Your task to perform on an android device: open a bookmark in the chrome app Image 0: 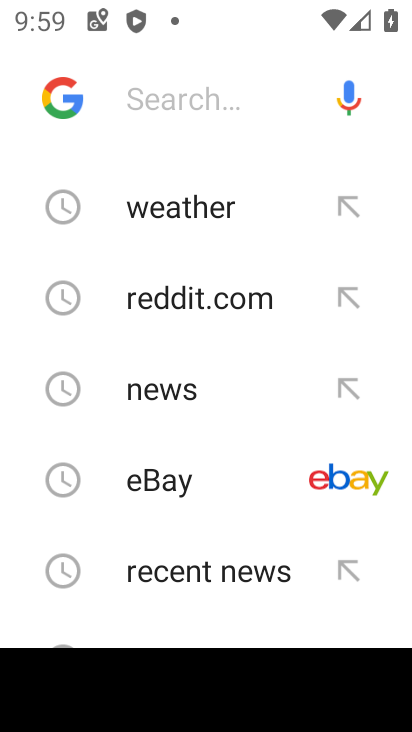
Step 0: press home button
Your task to perform on an android device: open a bookmark in the chrome app Image 1: 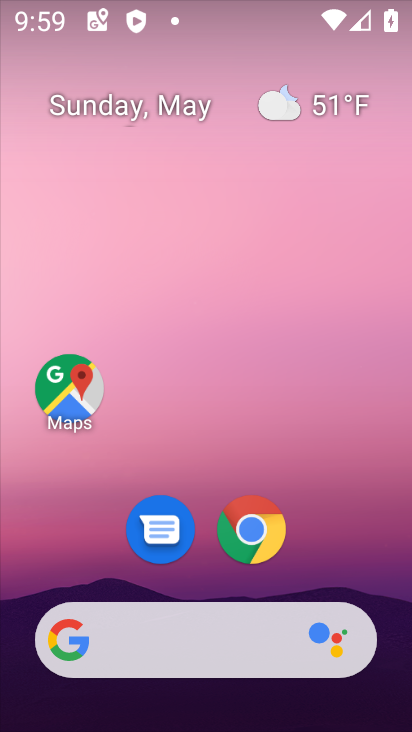
Step 1: drag from (257, 604) to (361, 65)
Your task to perform on an android device: open a bookmark in the chrome app Image 2: 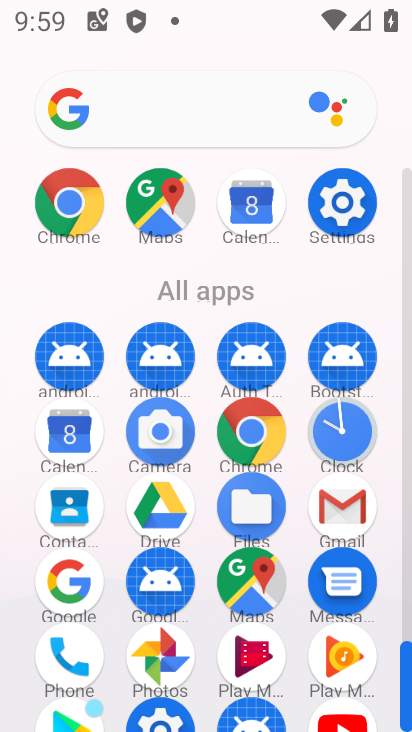
Step 2: click (260, 431)
Your task to perform on an android device: open a bookmark in the chrome app Image 3: 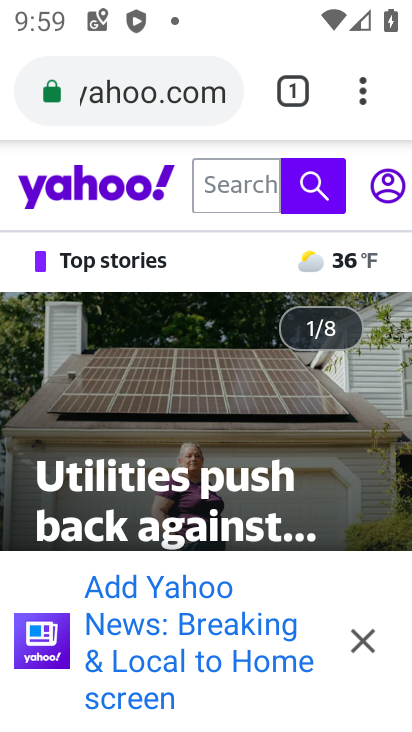
Step 3: click (366, 96)
Your task to perform on an android device: open a bookmark in the chrome app Image 4: 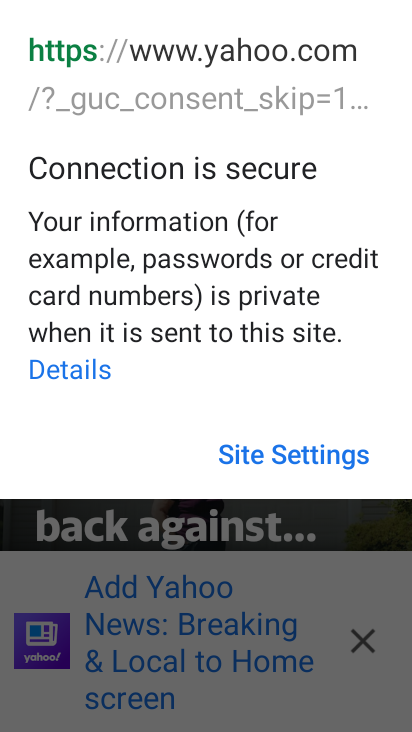
Step 4: click (322, 538)
Your task to perform on an android device: open a bookmark in the chrome app Image 5: 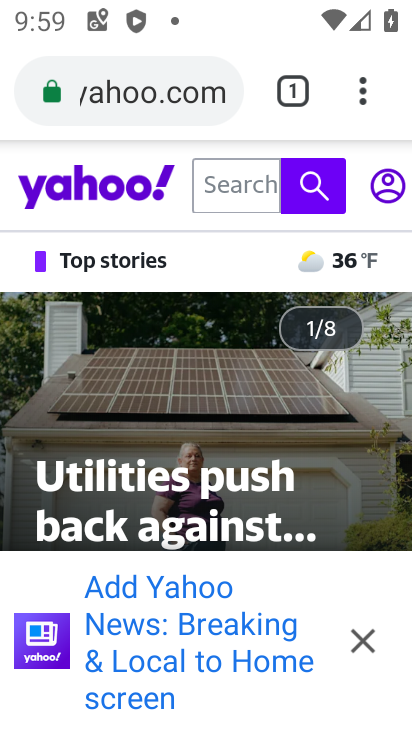
Step 5: task complete